Your task to perform on an android device: change text size in settings app Image 0: 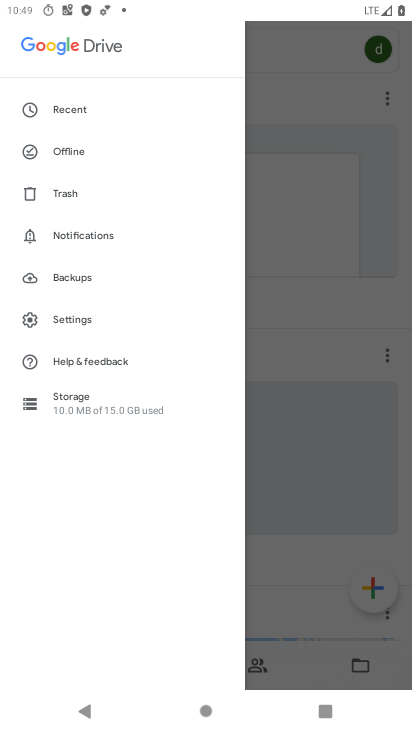
Step 0: press home button
Your task to perform on an android device: change text size in settings app Image 1: 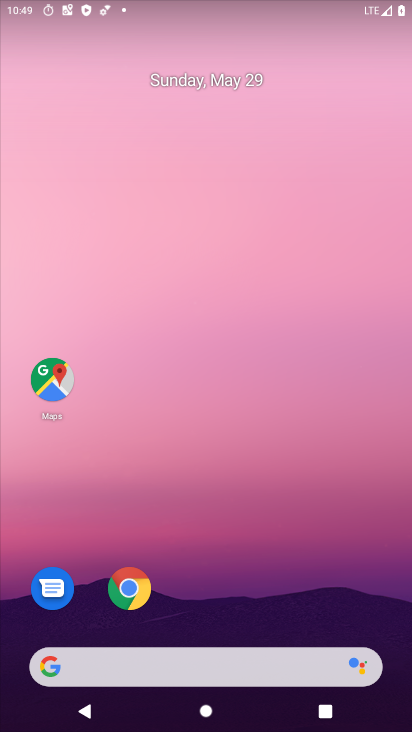
Step 1: drag from (218, 614) to (210, 202)
Your task to perform on an android device: change text size in settings app Image 2: 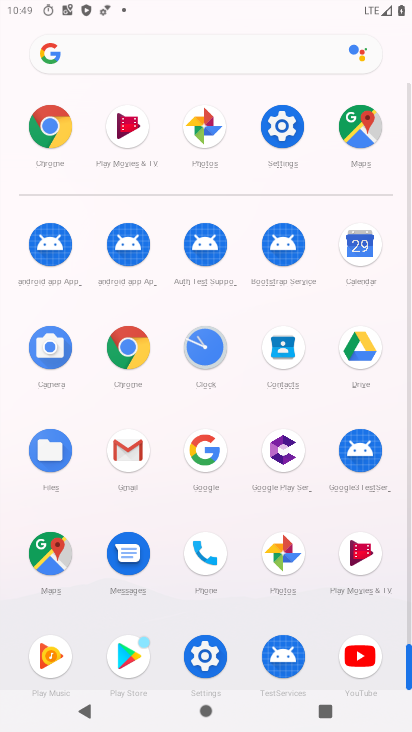
Step 2: click (210, 654)
Your task to perform on an android device: change text size in settings app Image 3: 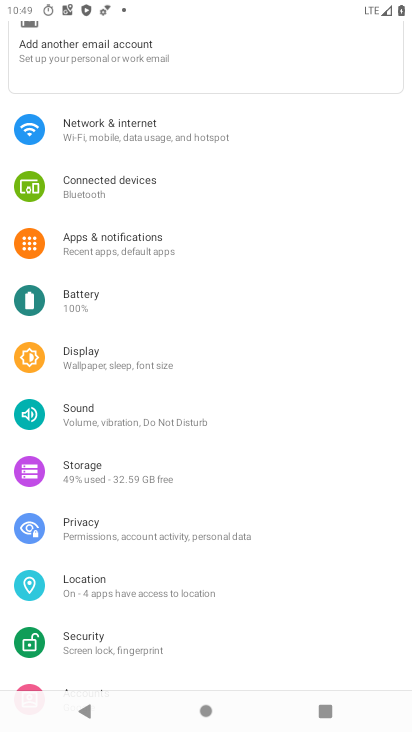
Step 3: drag from (138, 524) to (125, 223)
Your task to perform on an android device: change text size in settings app Image 4: 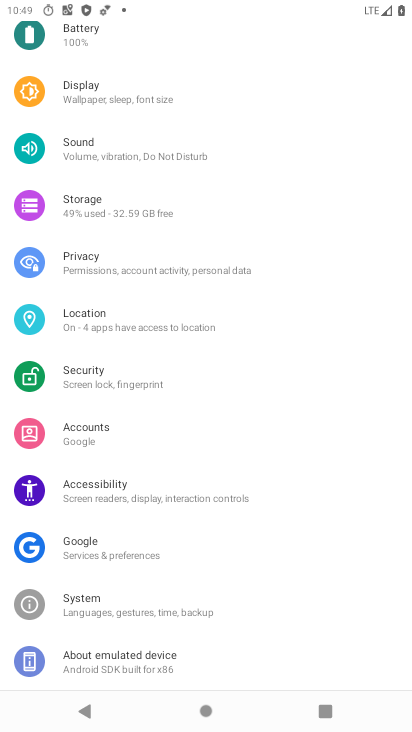
Step 4: drag from (138, 162) to (165, 622)
Your task to perform on an android device: change text size in settings app Image 5: 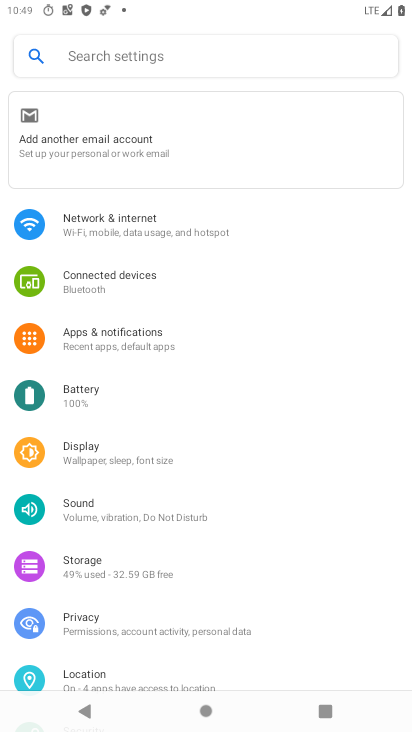
Step 5: drag from (113, 491) to (123, 209)
Your task to perform on an android device: change text size in settings app Image 6: 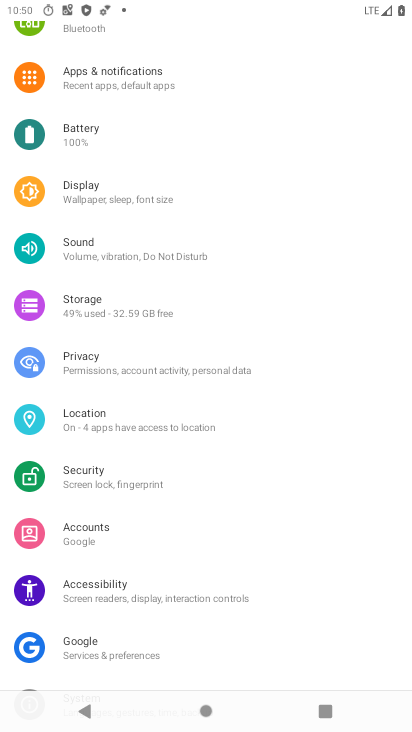
Step 6: drag from (70, 327) to (76, 241)
Your task to perform on an android device: change text size in settings app Image 7: 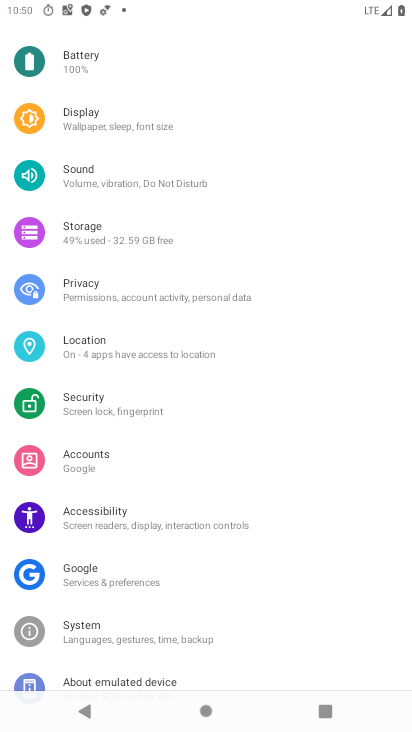
Step 7: drag from (134, 229) to (180, 456)
Your task to perform on an android device: change text size in settings app Image 8: 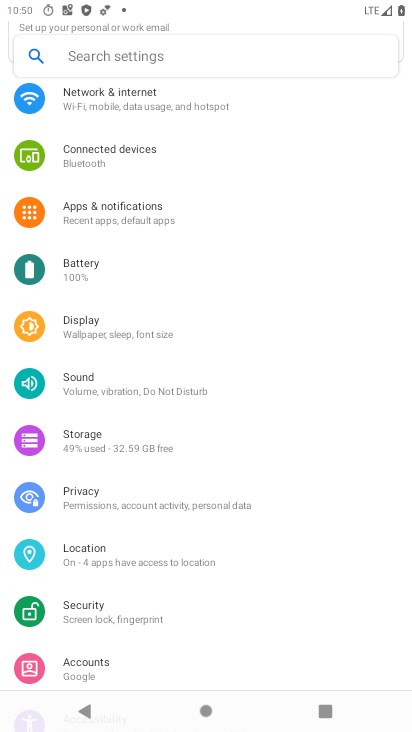
Step 8: click (169, 333)
Your task to perform on an android device: change text size in settings app Image 9: 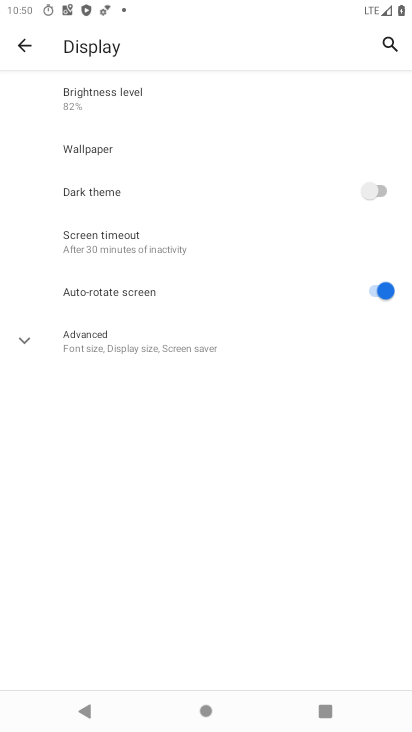
Step 9: click (141, 362)
Your task to perform on an android device: change text size in settings app Image 10: 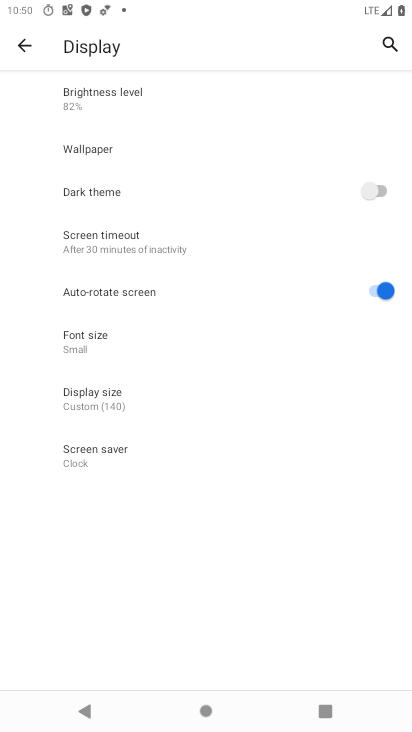
Step 10: click (123, 333)
Your task to perform on an android device: change text size in settings app Image 11: 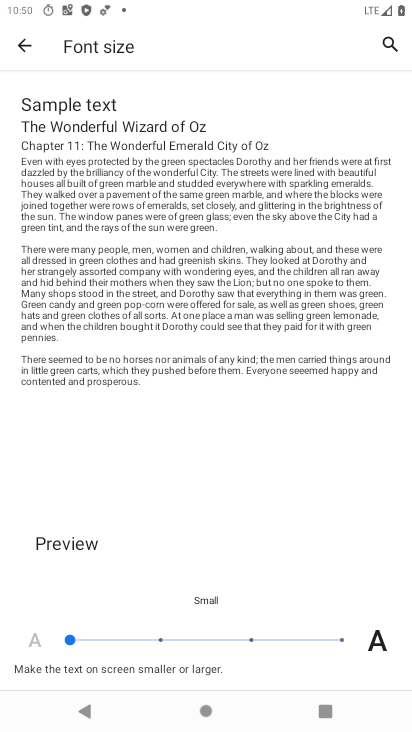
Step 11: click (158, 634)
Your task to perform on an android device: change text size in settings app Image 12: 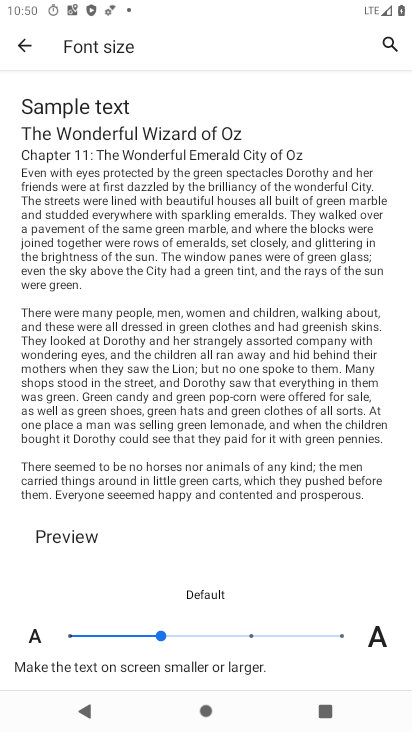
Step 12: task complete